Your task to perform on an android device: Show me the alarms in the clock app Image 0: 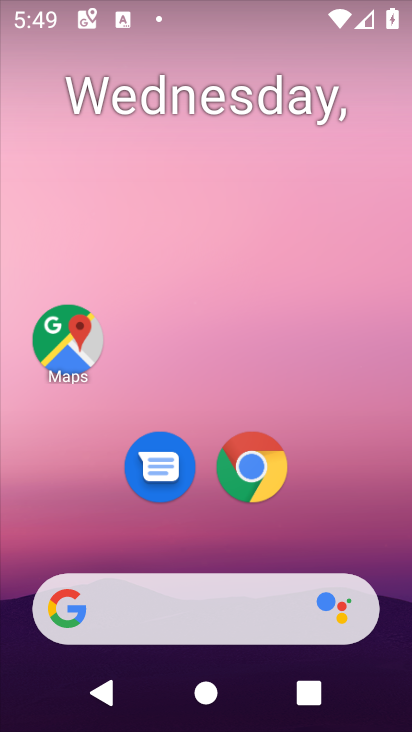
Step 0: drag from (338, 502) to (251, 40)
Your task to perform on an android device: Show me the alarms in the clock app Image 1: 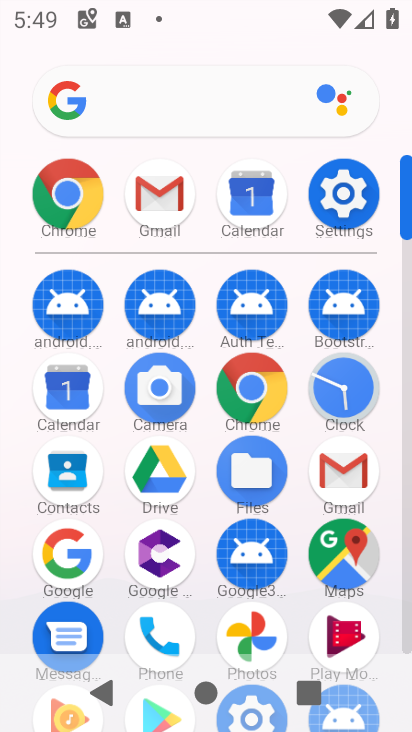
Step 1: click (346, 402)
Your task to perform on an android device: Show me the alarms in the clock app Image 2: 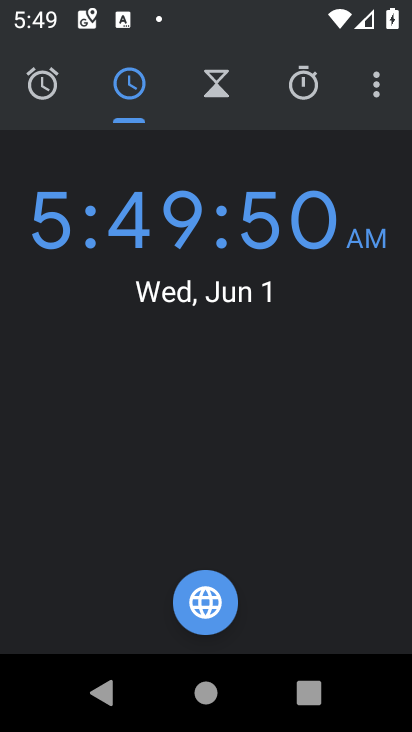
Step 2: click (61, 87)
Your task to perform on an android device: Show me the alarms in the clock app Image 3: 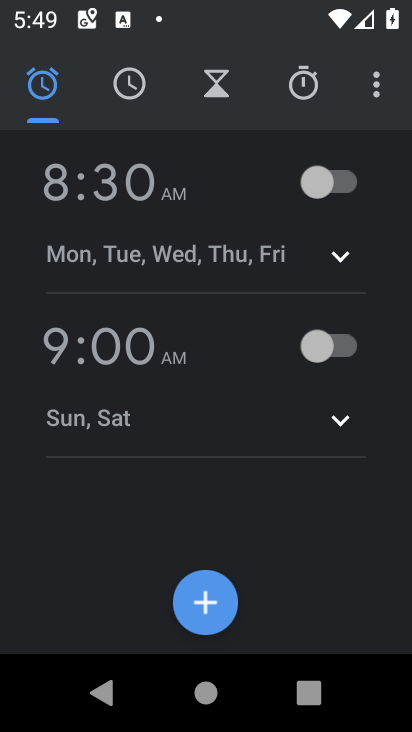
Step 3: task complete